Your task to perform on an android device: Open CNN.com Image 0: 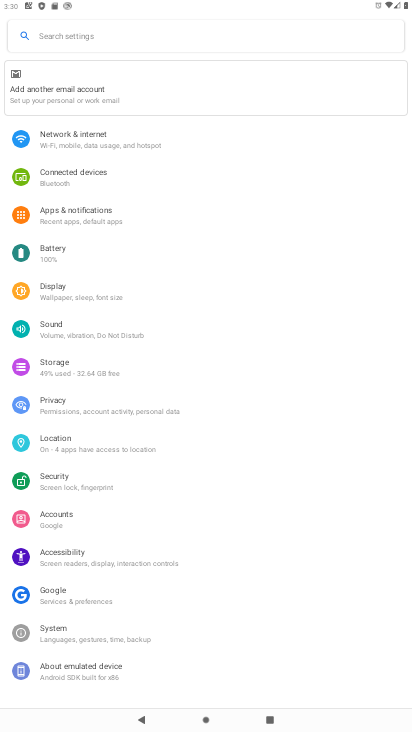
Step 0: press home button
Your task to perform on an android device: Open CNN.com Image 1: 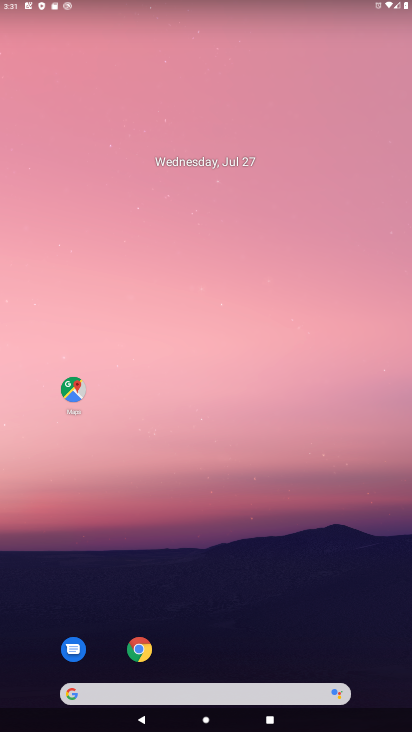
Step 1: click (139, 651)
Your task to perform on an android device: Open CNN.com Image 2: 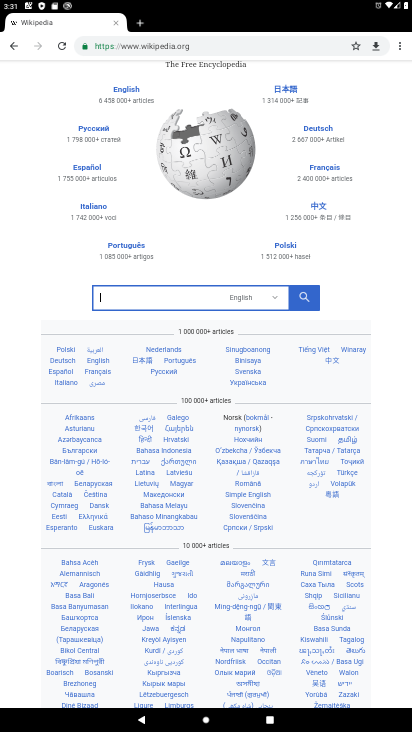
Step 2: click (209, 45)
Your task to perform on an android device: Open CNN.com Image 3: 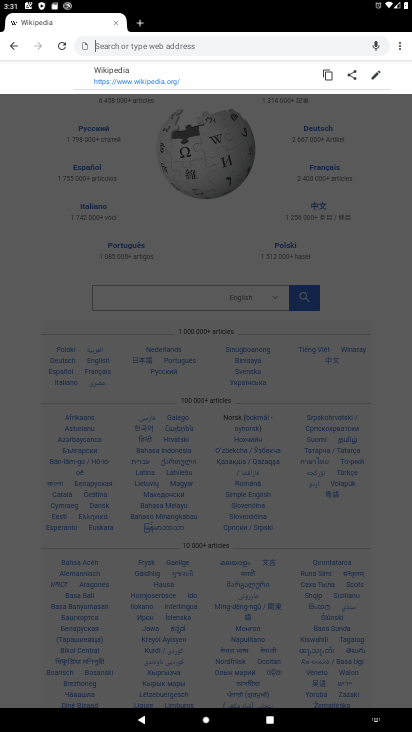
Step 3: type "cnn.com"
Your task to perform on an android device: Open CNN.com Image 4: 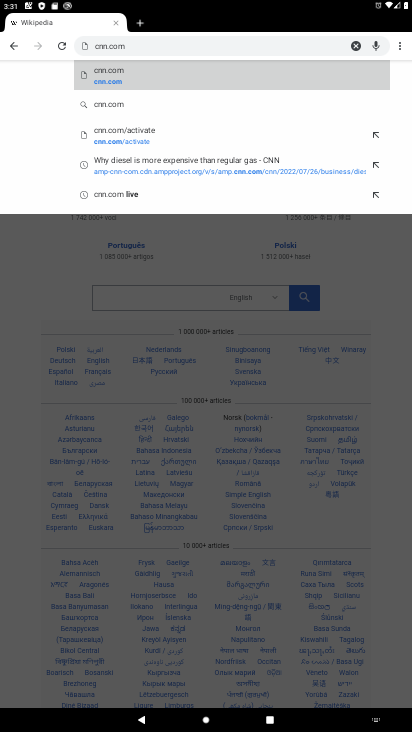
Step 4: click (104, 72)
Your task to perform on an android device: Open CNN.com Image 5: 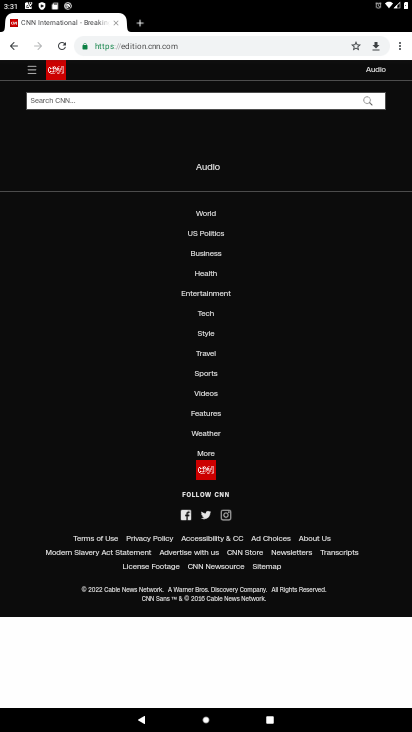
Step 5: task complete